Your task to perform on an android device: allow cookies in the chrome app Image 0: 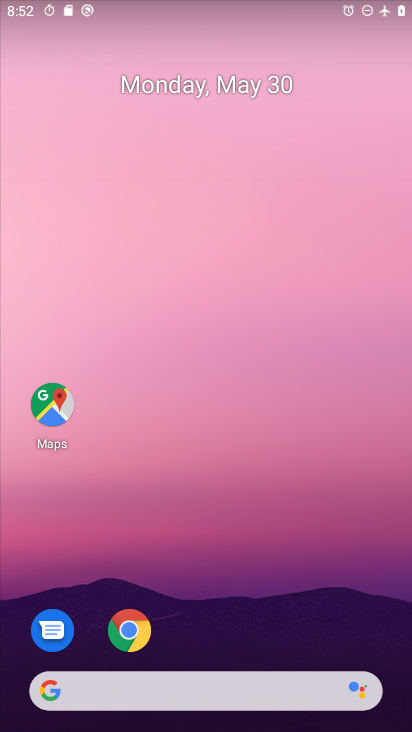
Step 0: drag from (323, 629) to (237, 27)
Your task to perform on an android device: allow cookies in the chrome app Image 1: 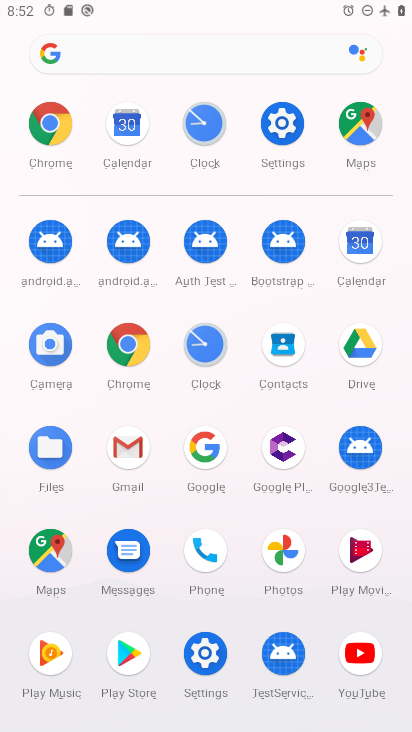
Step 1: click (75, 132)
Your task to perform on an android device: allow cookies in the chrome app Image 2: 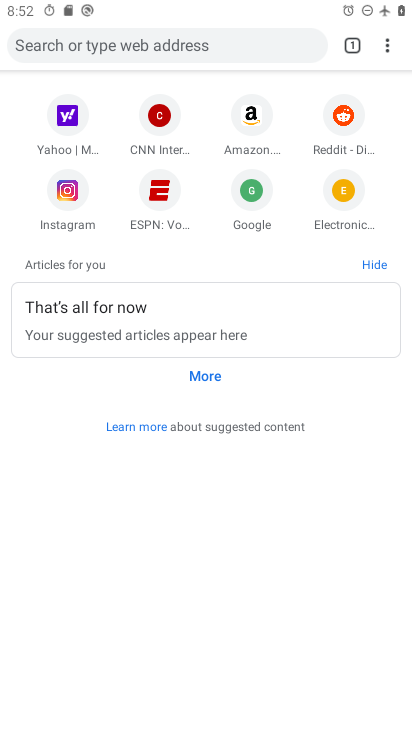
Step 2: click (386, 42)
Your task to perform on an android device: allow cookies in the chrome app Image 3: 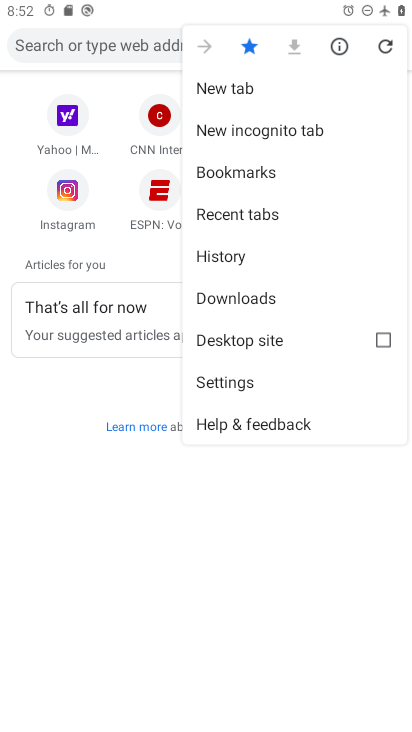
Step 3: click (249, 394)
Your task to perform on an android device: allow cookies in the chrome app Image 4: 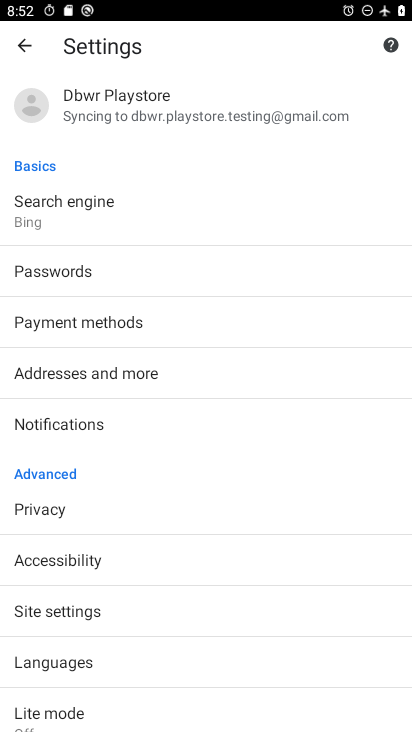
Step 4: press back button
Your task to perform on an android device: allow cookies in the chrome app Image 5: 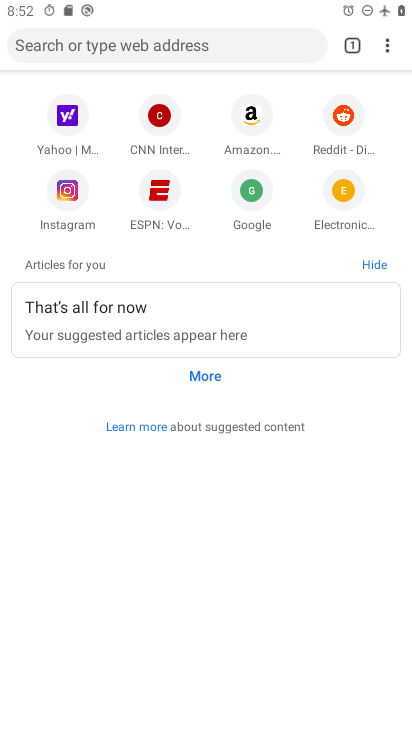
Step 5: click (386, 46)
Your task to perform on an android device: allow cookies in the chrome app Image 6: 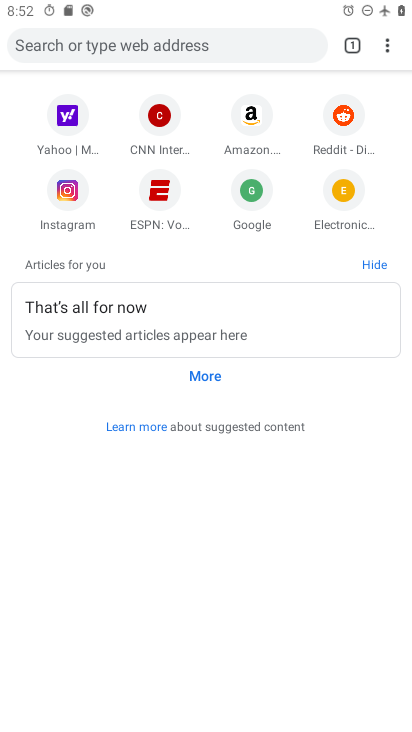
Step 6: click (386, 38)
Your task to perform on an android device: allow cookies in the chrome app Image 7: 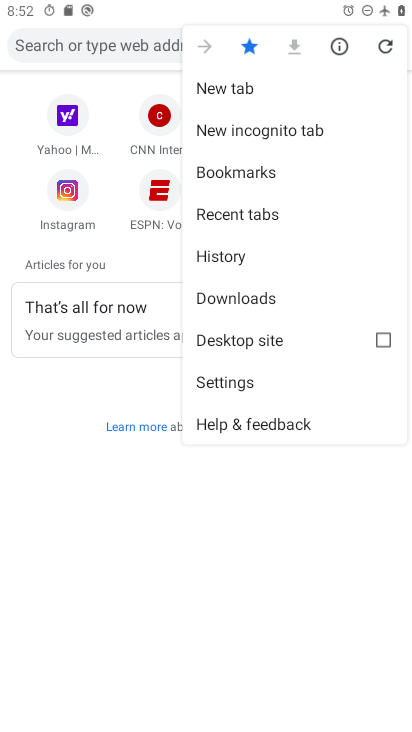
Step 7: click (233, 255)
Your task to perform on an android device: allow cookies in the chrome app Image 8: 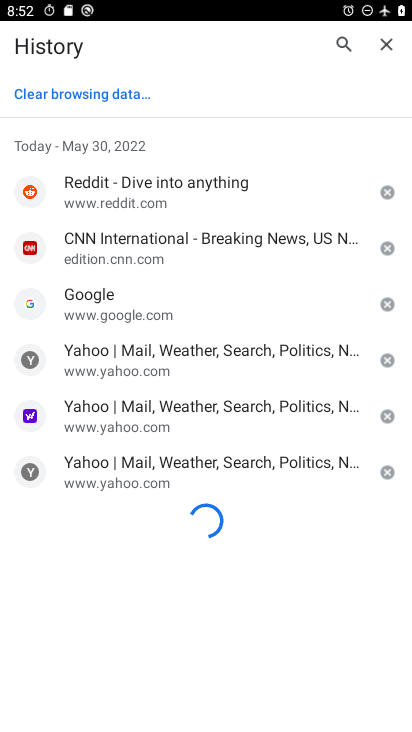
Step 8: click (100, 102)
Your task to perform on an android device: allow cookies in the chrome app Image 9: 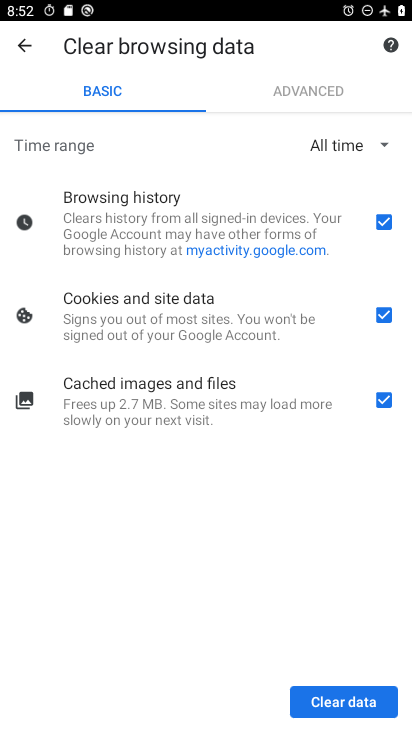
Step 9: click (350, 701)
Your task to perform on an android device: allow cookies in the chrome app Image 10: 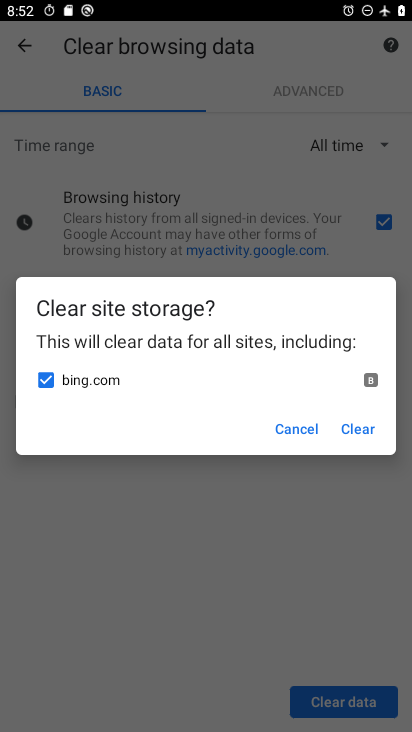
Step 10: click (357, 415)
Your task to perform on an android device: allow cookies in the chrome app Image 11: 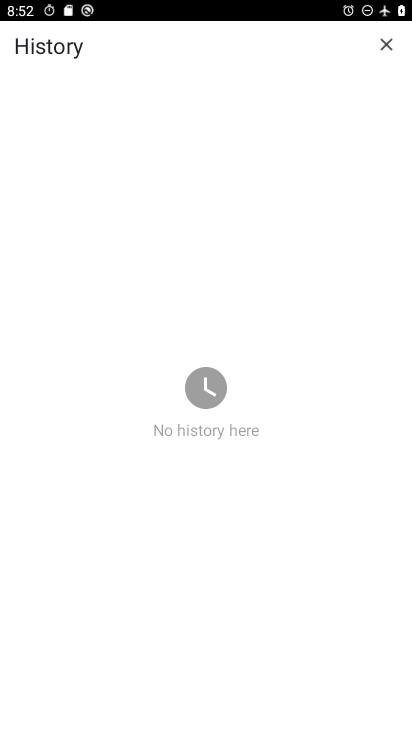
Step 11: task complete